Your task to perform on an android device: open chrome and create a bookmark for the current page Image 0: 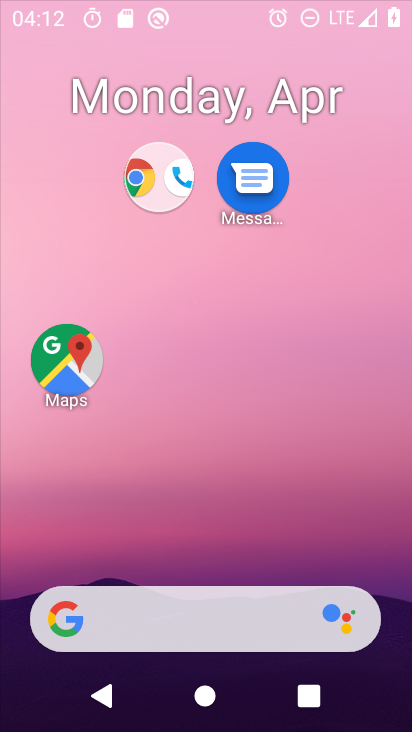
Step 0: drag from (300, 519) to (320, 86)
Your task to perform on an android device: open chrome and create a bookmark for the current page Image 1: 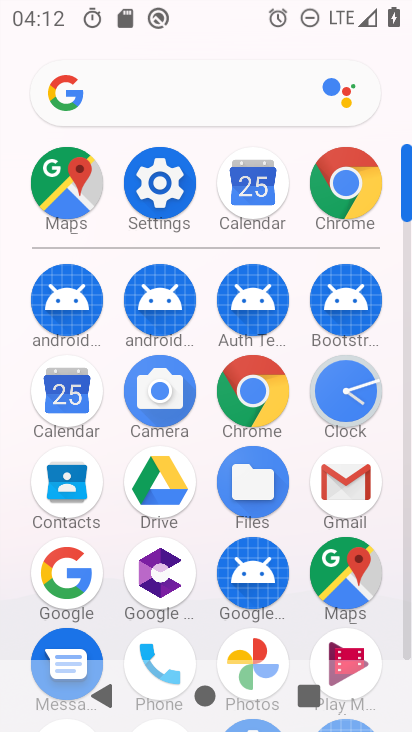
Step 1: click (245, 398)
Your task to perform on an android device: open chrome and create a bookmark for the current page Image 2: 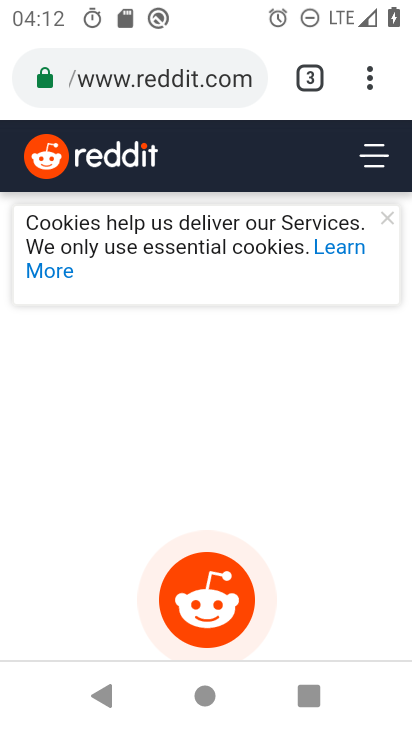
Step 2: task complete